Your task to perform on an android device: Go to Amazon Image 0: 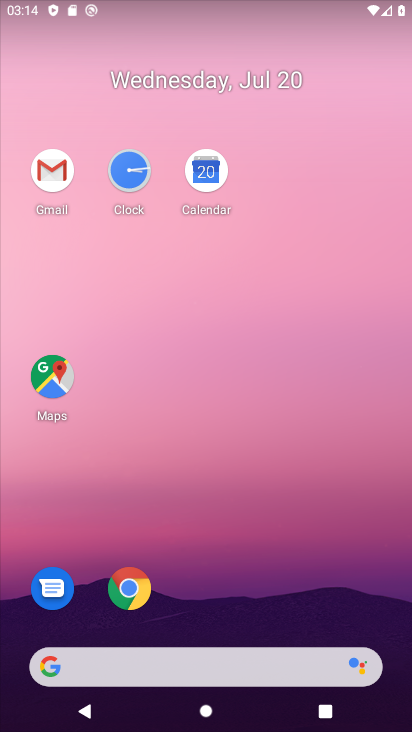
Step 0: click (129, 579)
Your task to perform on an android device: Go to Amazon Image 1: 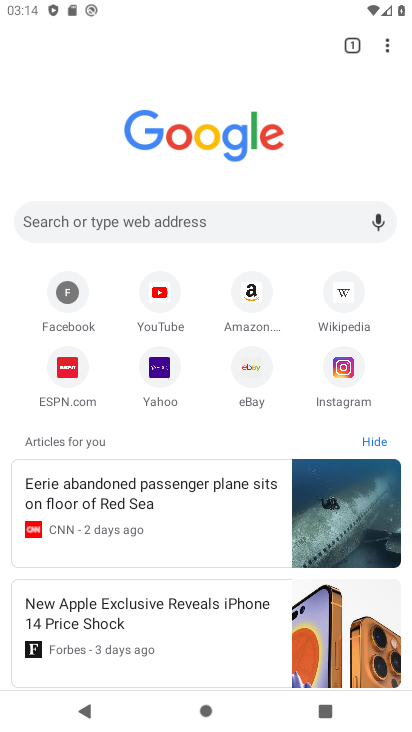
Step 1: click (255, 296)
Your task to perform on an android device: Go to Amazon Image 2: 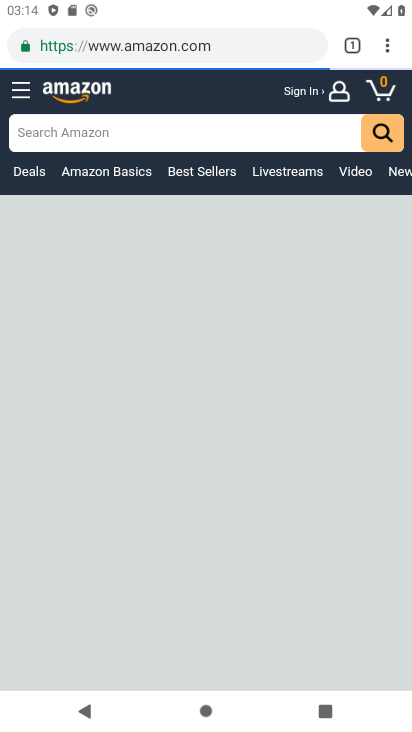
Step 2: task complete